Your task to perform on an android device: set an alarm Image 0: 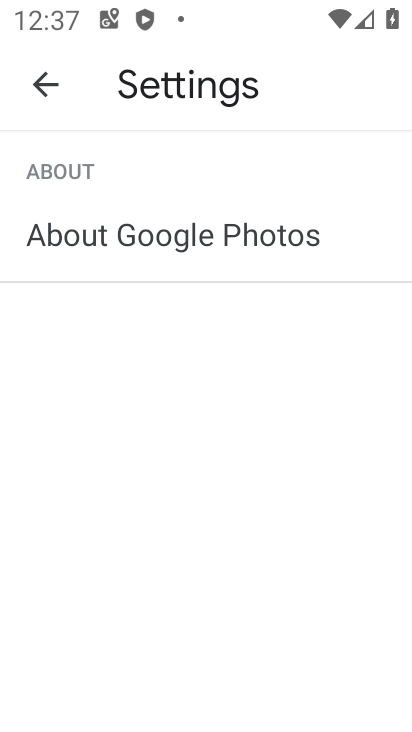
Step 0: press home button
Your task to perform on an android device: set an alarm Image 1: 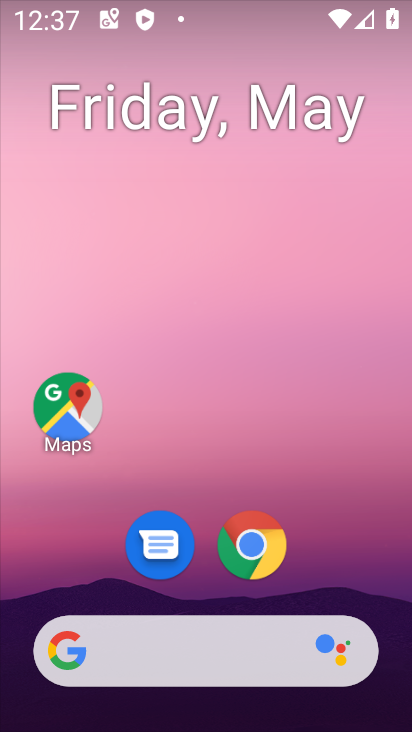
Step 1: click (325, 567)
Your task to perform on an android device: set an alarm Image 2: 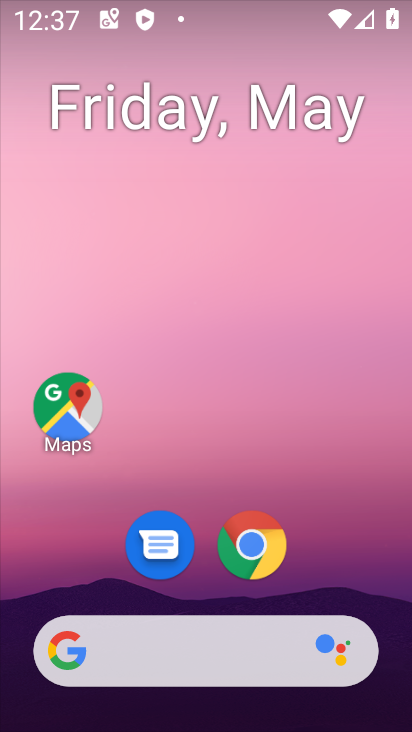
Step 2: drag from (325, 517) to (331, 194)
Your task to perform on an android device: set an alarm Image 3: 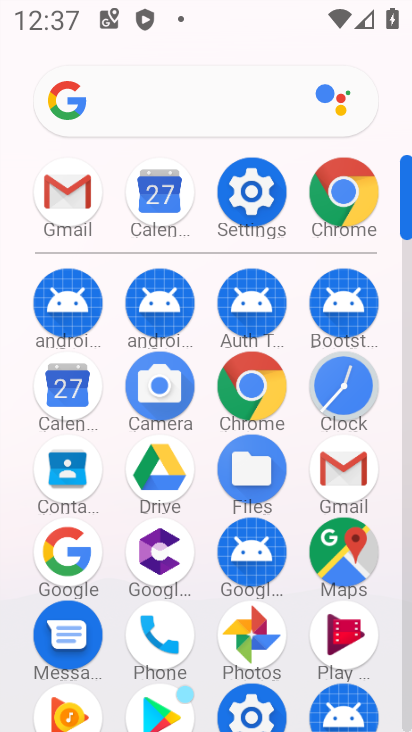
Step 3: click (341, 381)
Your task to perform on an android device: set an alarm Image 4: 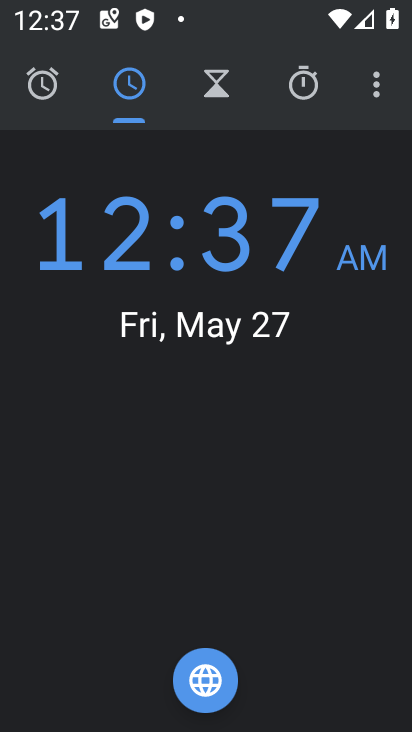
Step 4: click (52, 72)
Your task to perform on an android device: set an alarm Image 5: 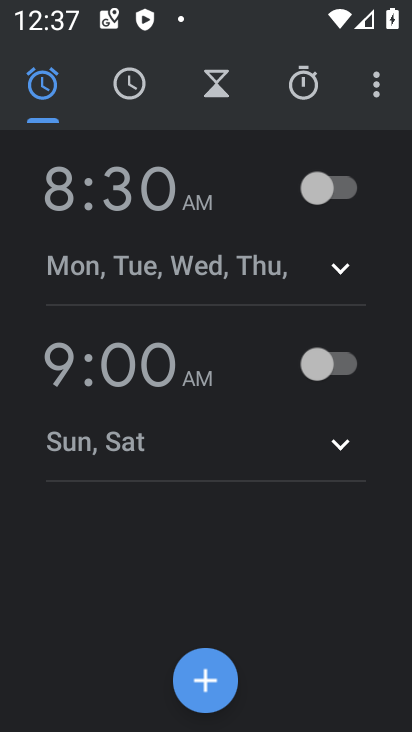
Step 5: click (335, 169)
Your task to perform on an android device: set an alarm Image 6: 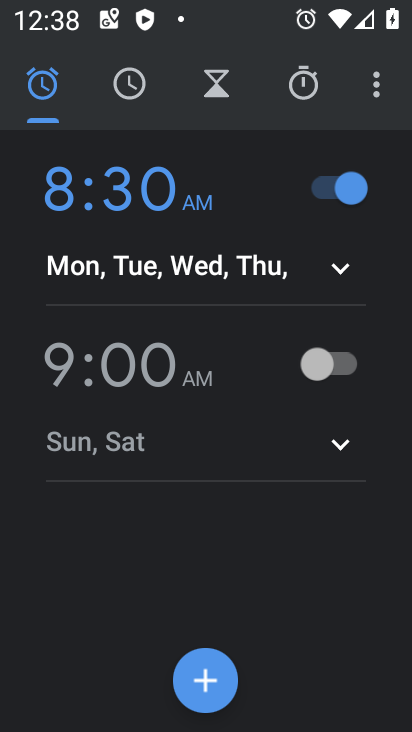
Step 6: task complete